Your task to perform on an android device: Open Android settings Image 0: 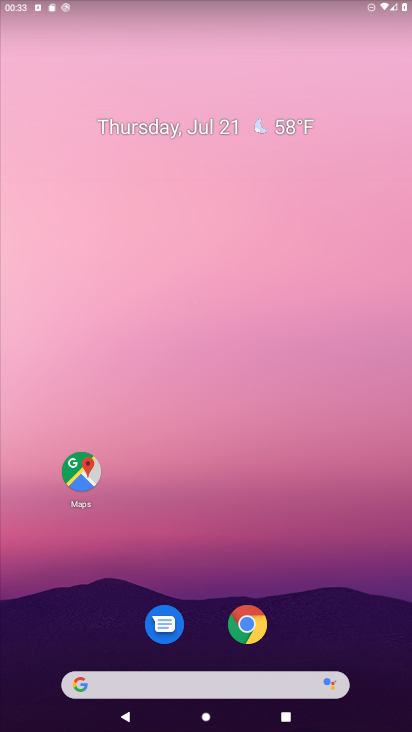
Step 0: drag from (203, 584) to (213, 198)
Your task to perform on an android device: Open Android settings Image 1: 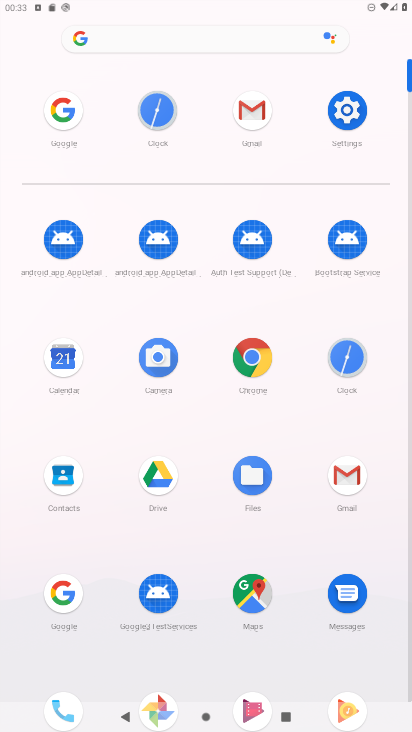
Step 1: click (350, 121)
Your task to perform on an android device: Open Android settings Image 2: 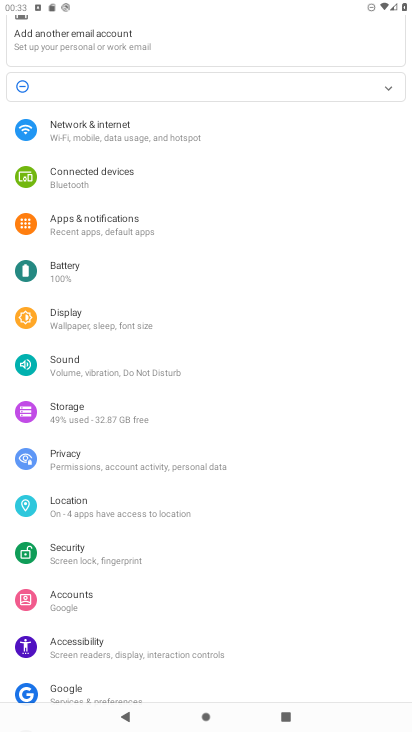
Step 2: task complete